Your task to perform on an android device: Empty the shopping cart on costco.com. Add "usb-a to usb-b" to the cart on costco.com, then select checkout. Image 0: 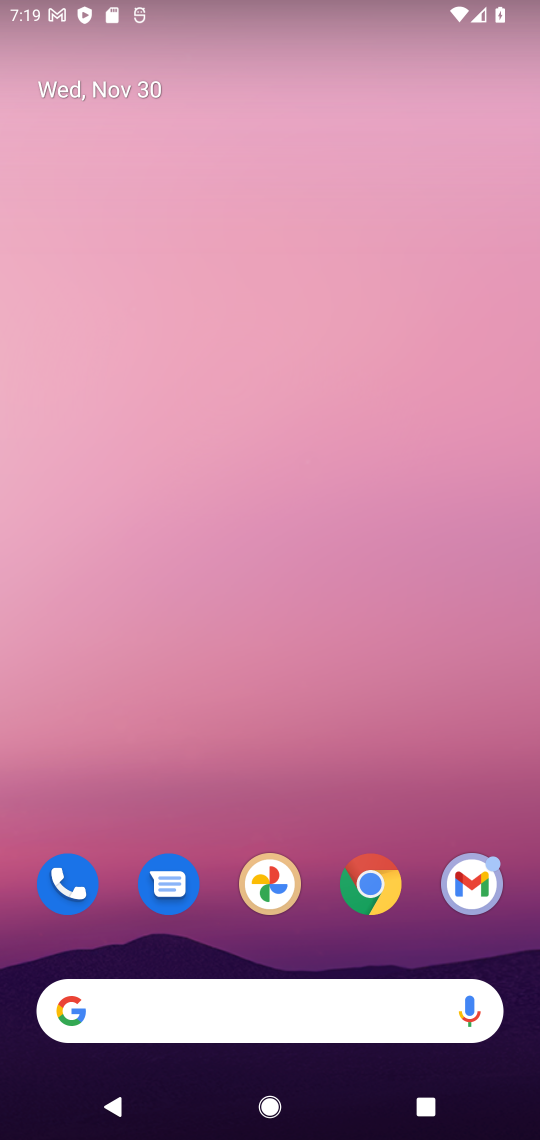
Step 0: click (371, 889)
Your task to perform on an android device: Empty the shopping cart on costco.com. Add "usb-a to usb-b" to the cart on costco.com, then select checkout. Image 1: 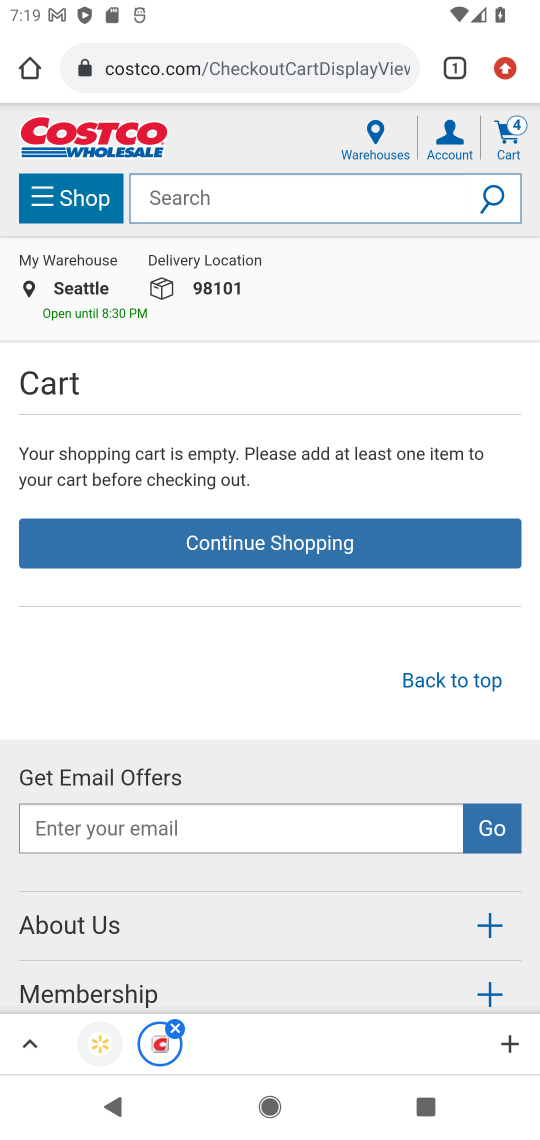
Step 1: click (505, 138)
Your task to perform on an android device: Empty the shopping cart on costco.com. Add "usb-a to usb-b" to the cart on costco.com, then select checkout. Image 2: 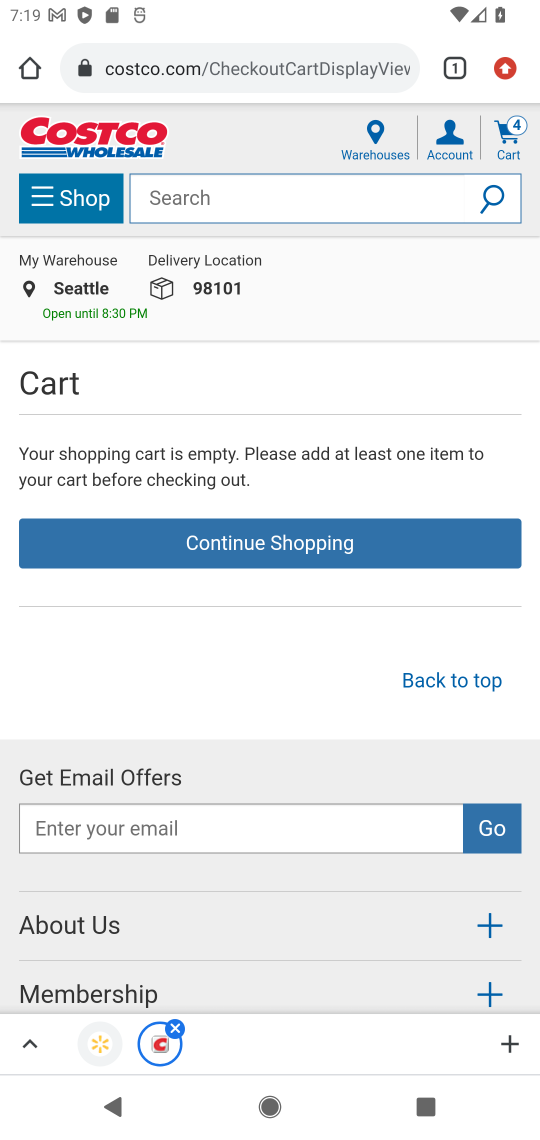
Step 2: click (198, 206)
Your task to perform on an android device: Empty the shopping cart on costco.com. Add "usb-a to usb-b" to the cart on costco.com, then select checkout. Image 3: 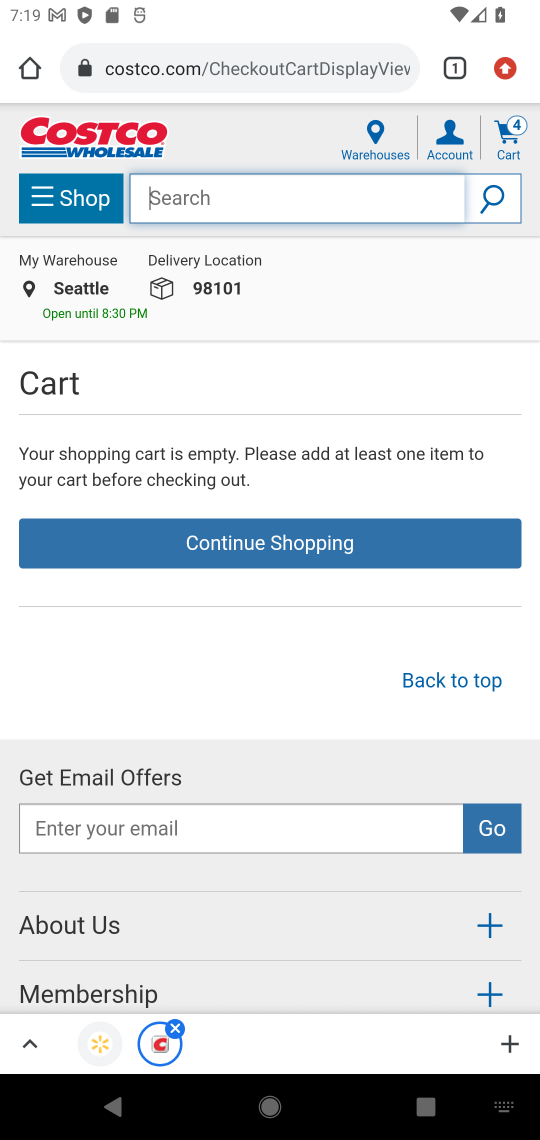
Step 3: type "usb-a to usb-b"
Your task to perform on an android device: Empty the shopping cart on costco.com. Add "usb-a to usb-b" to the cart on costco.com, then select checkout. Image 4: 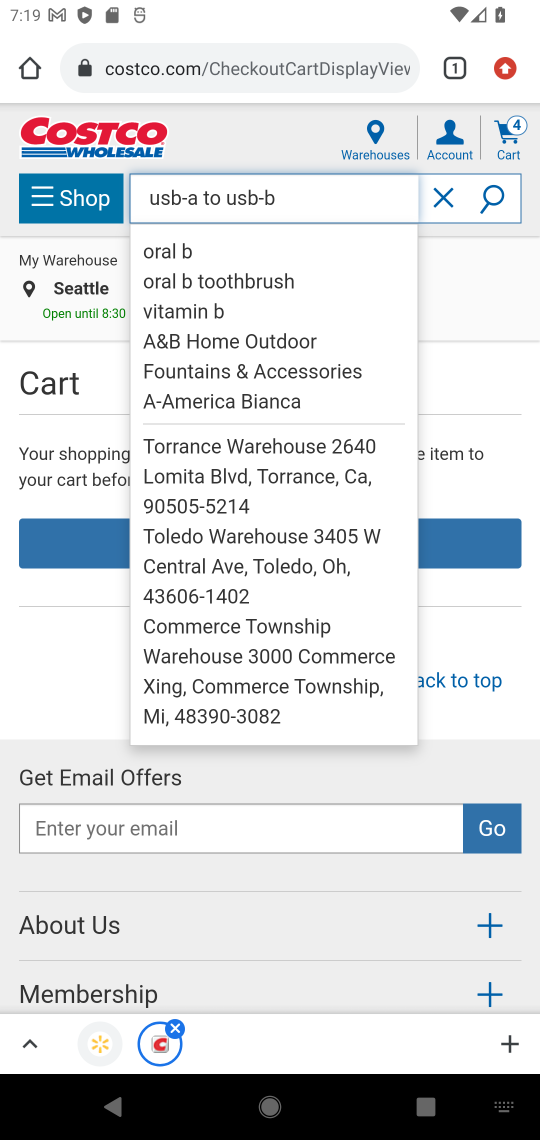
Step 4: click (505, 186)
Your task to perform on an android device: Empty the shopping cart on costco.com. Add "usb-a to usb-b" to the cart on costco.com, then select checkout. Image 5: 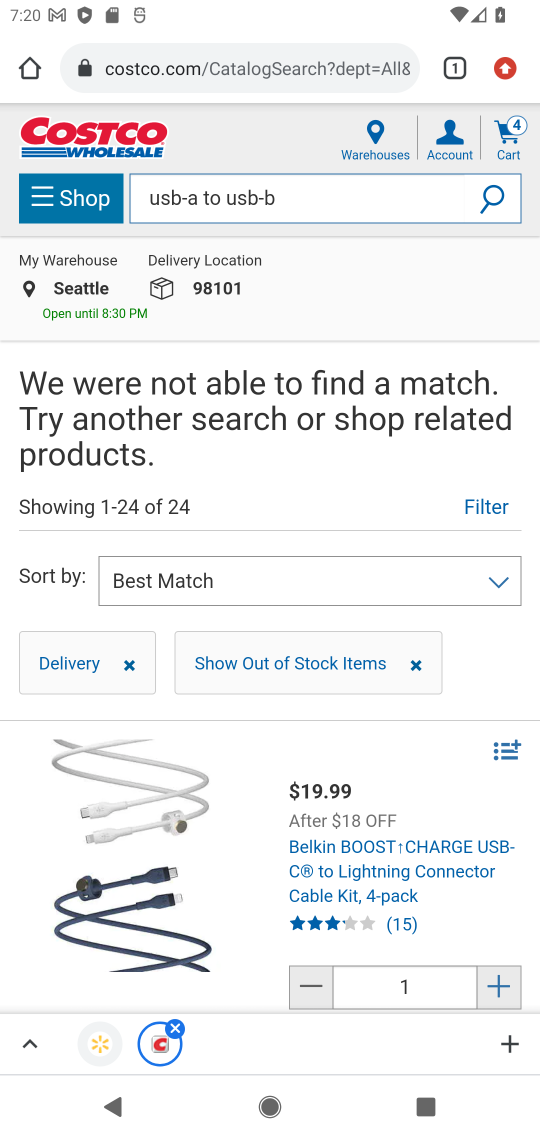
Step 5: task complete